Your task to perform on an android device: Go to Yahoo.com Image 0: 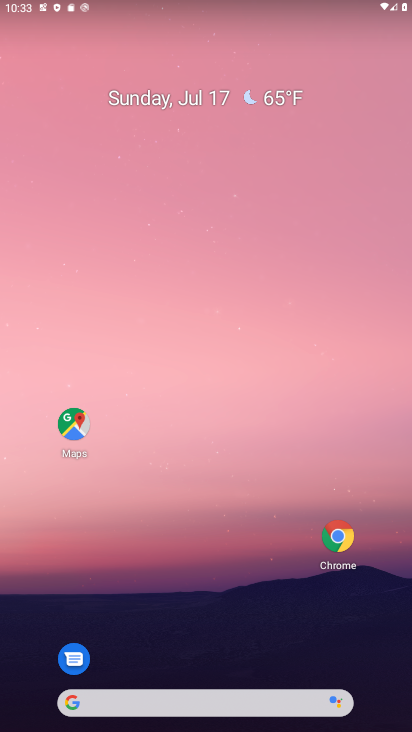
Step 0: click (329, 554)
Your task to perform on an android device: Go to Yahoo.com Image 1: 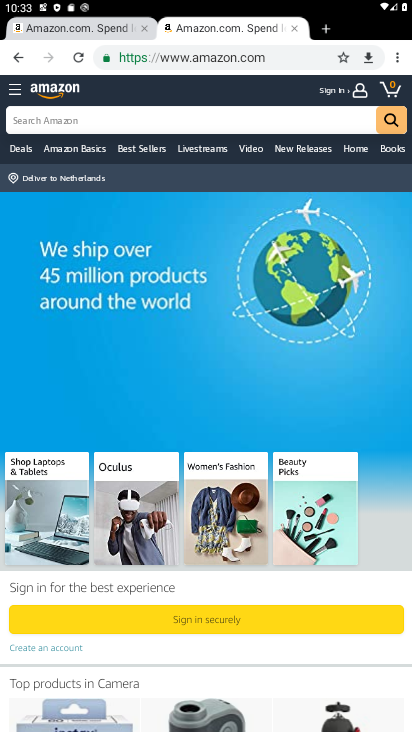
Step 1: click (175, 60)
Your task to perform on an android device: Go to Yahoo.com Image 2: 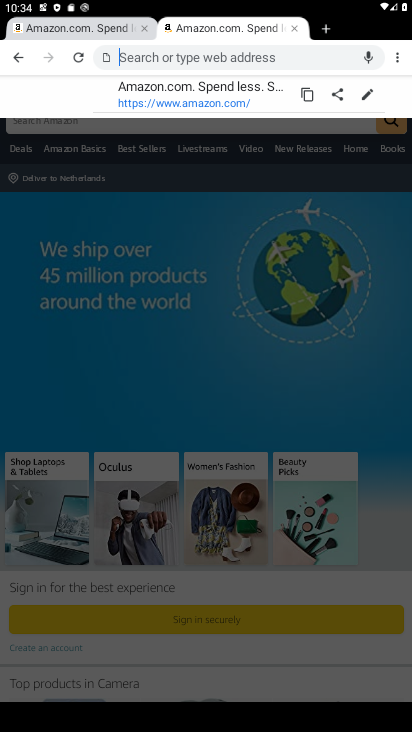
Step 2: type "yahoo.com"
Your task to perform on an android device: Go to Yahoo.com Image 3: 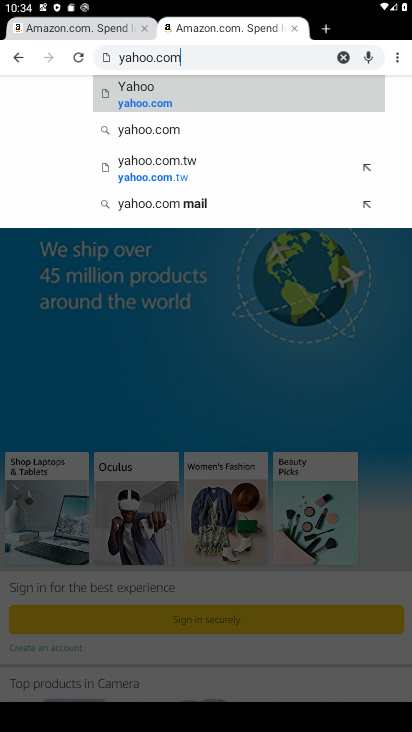
Step 3: click (165, 99)
Your task to perform on an android device: Go to Yahoo.com Image 4: 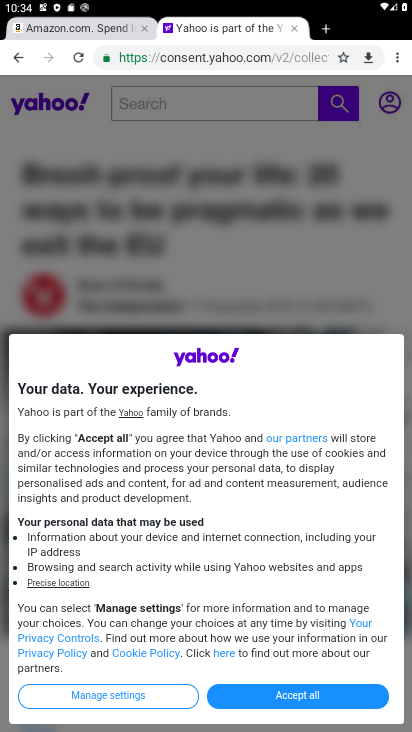
Step 4: task complete